Your task to perform on an android device: turn pop-ups on in chrome Image 0: 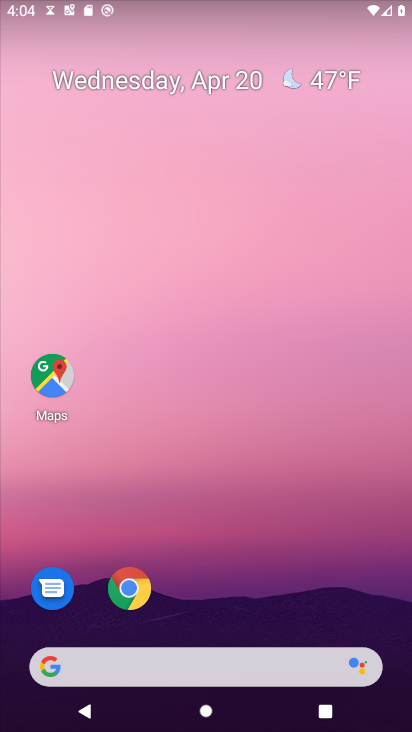
Step 0: click (122, 597)
Your task to perform on an android device: turn pop-ups on in chrome Image 1: 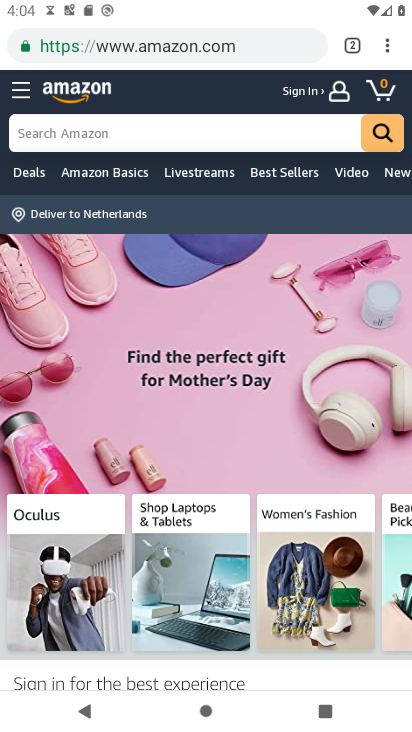
Step 1: click (383, 51)
Your task to perform on an android device: turn pop-ups on in chrome Image 2: 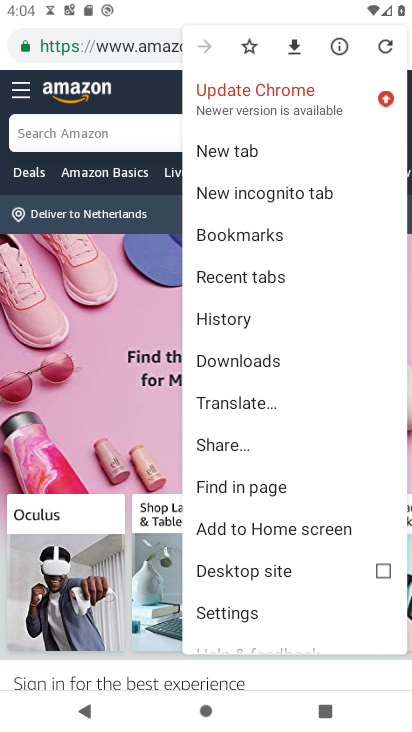
Step 2: click (243, 606)
Your task to perform on an android device: turn pop-ups on in chrome Image 3: 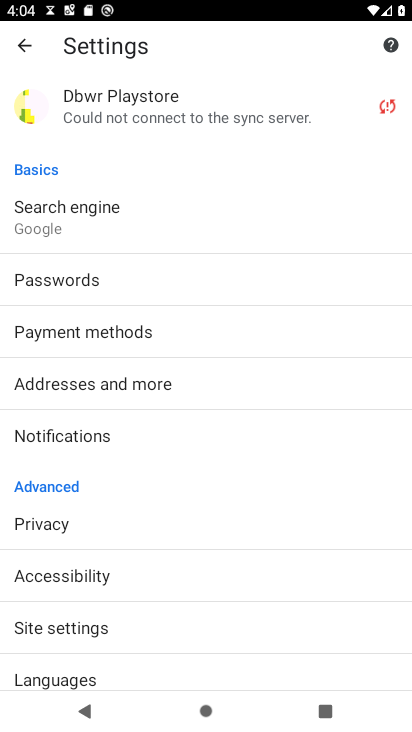
Step 3: click (168, 628)
Your task to perform on an android device: turn pop-ups on in chrome Image 4: 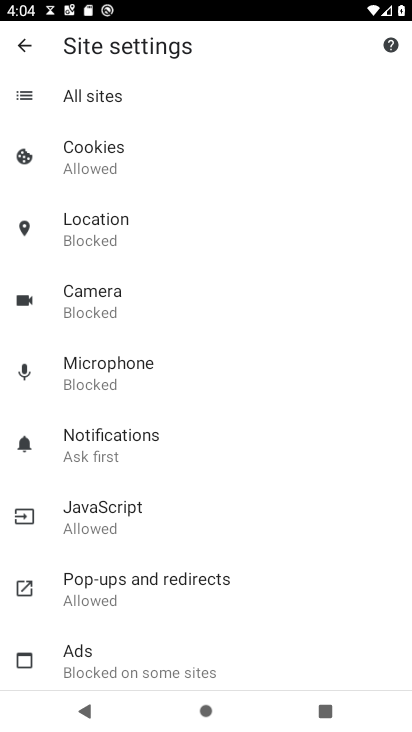
Step 4: click (87, 588)
Your task to perform on an android device: turn pop-ups on in chrome Image 5: 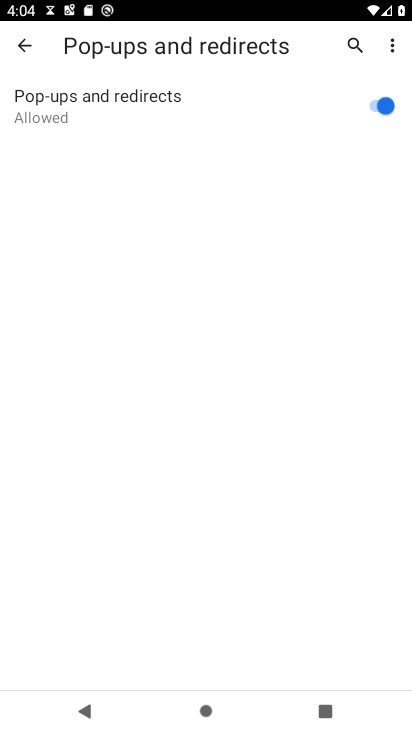
Step 5: task complete